Your task to perform on an android device: What is the recent news? Image 0: 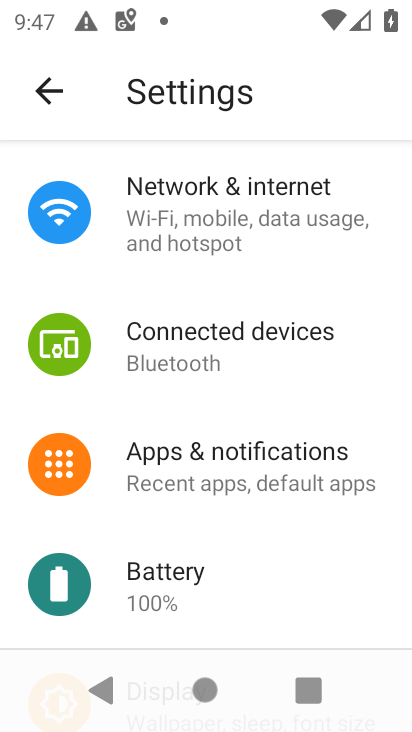
Step 0: press home button
Your task to perform on an android device: What is the recent news? Image 1: 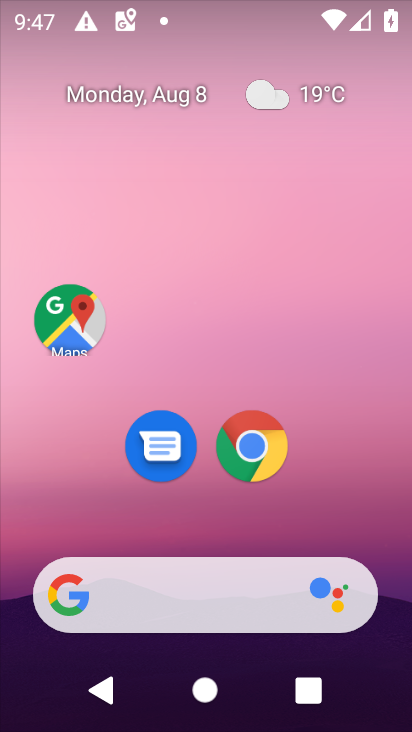
Step 1: task complete